Your task to perform on an android device: Open Google Chrome Image 0: 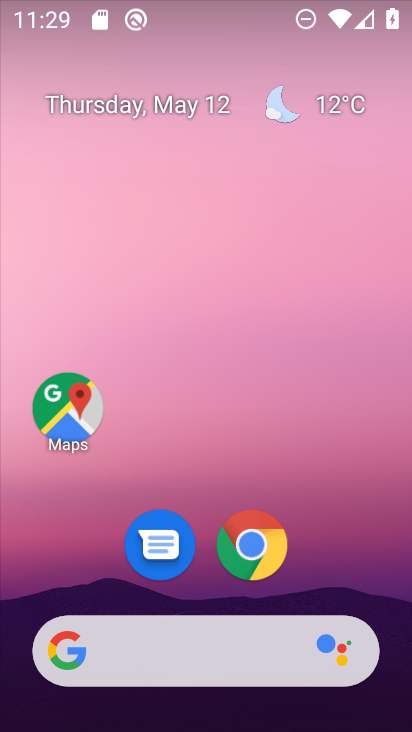
Step 0: drag from (206, 594) to (222, 74)
Your task to perform on an android device: Open Google Chrome Image 1: 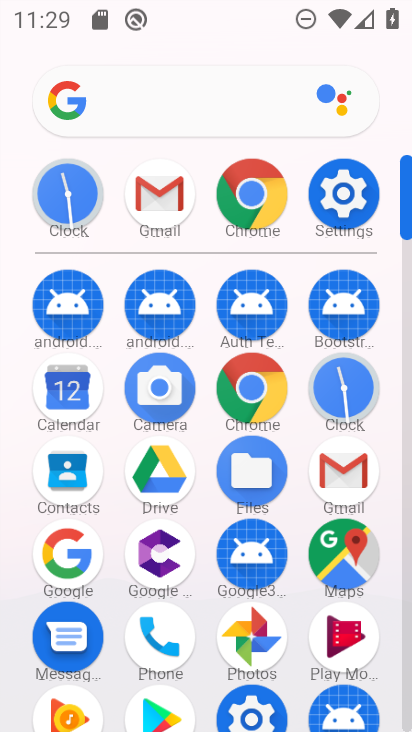
Step 1: click (251, 384)
Your task to perform on an android device: Open Google Chrome Image 2: 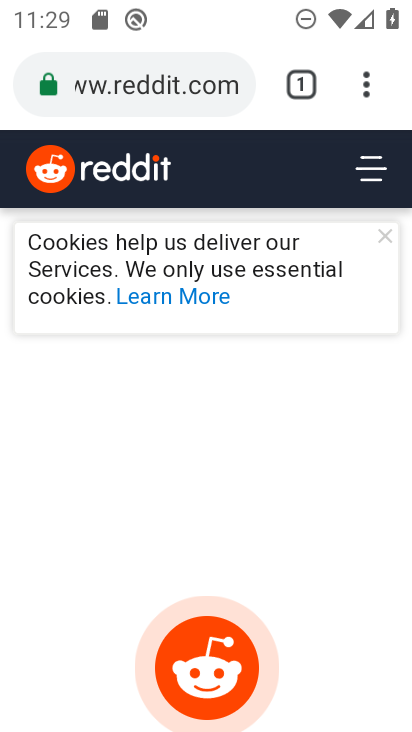
Step 2: click (361, 82)
Your task to perform on an android device: Open Google Chrome Image 3: 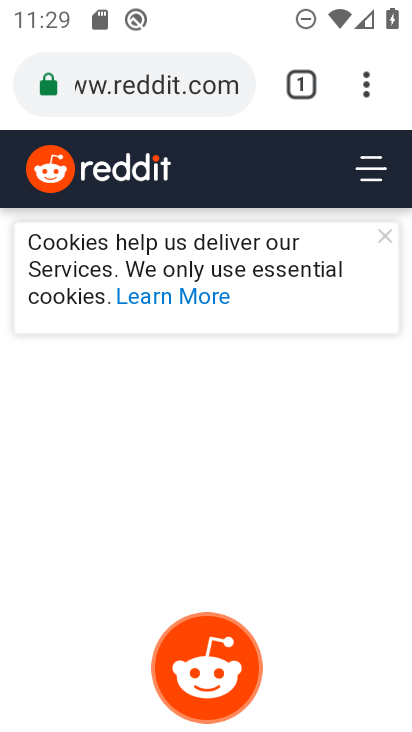
Step 3: task complete